Your task to perform on an android device: Go to internet settings Image 0: 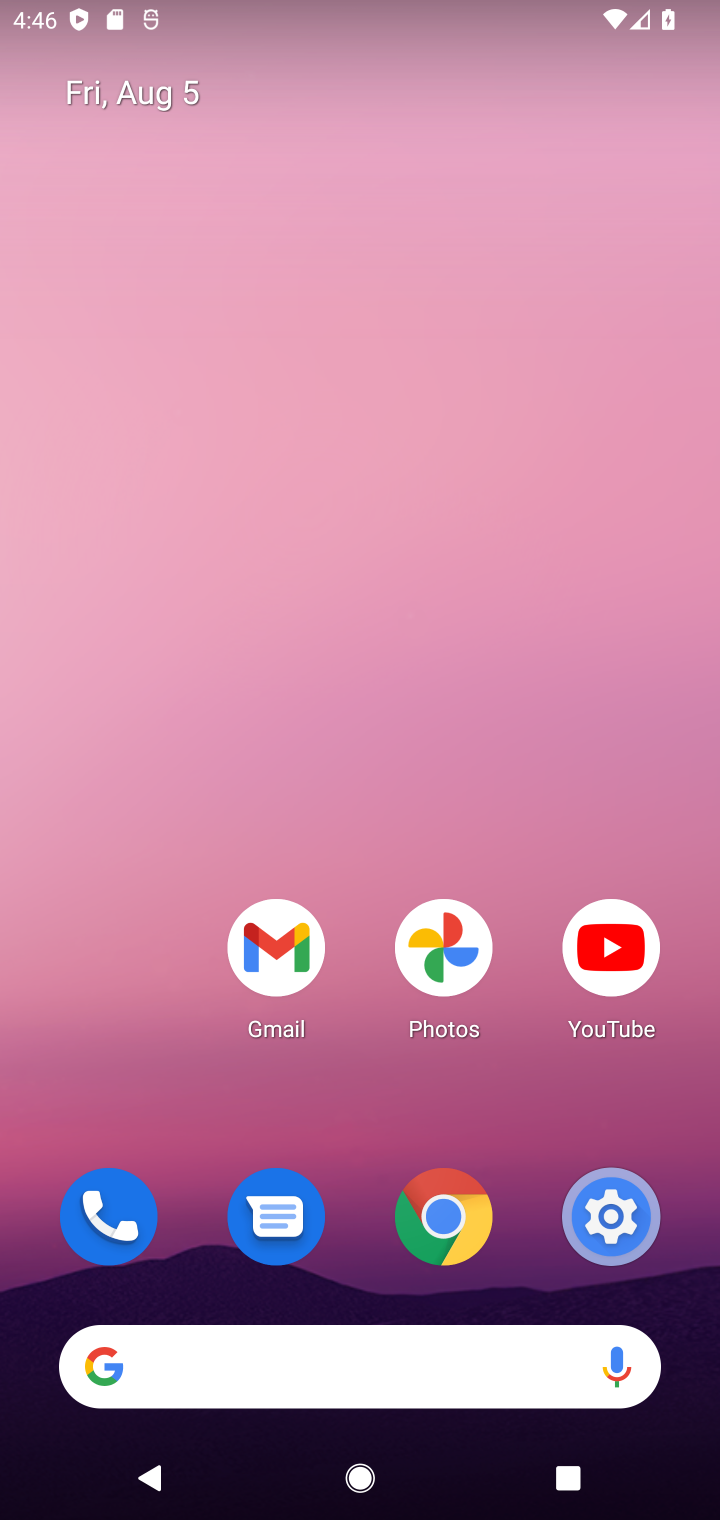
Step 0: click (618, 1214)
Your task to perform on an android device: Go to internet settings Image 1: 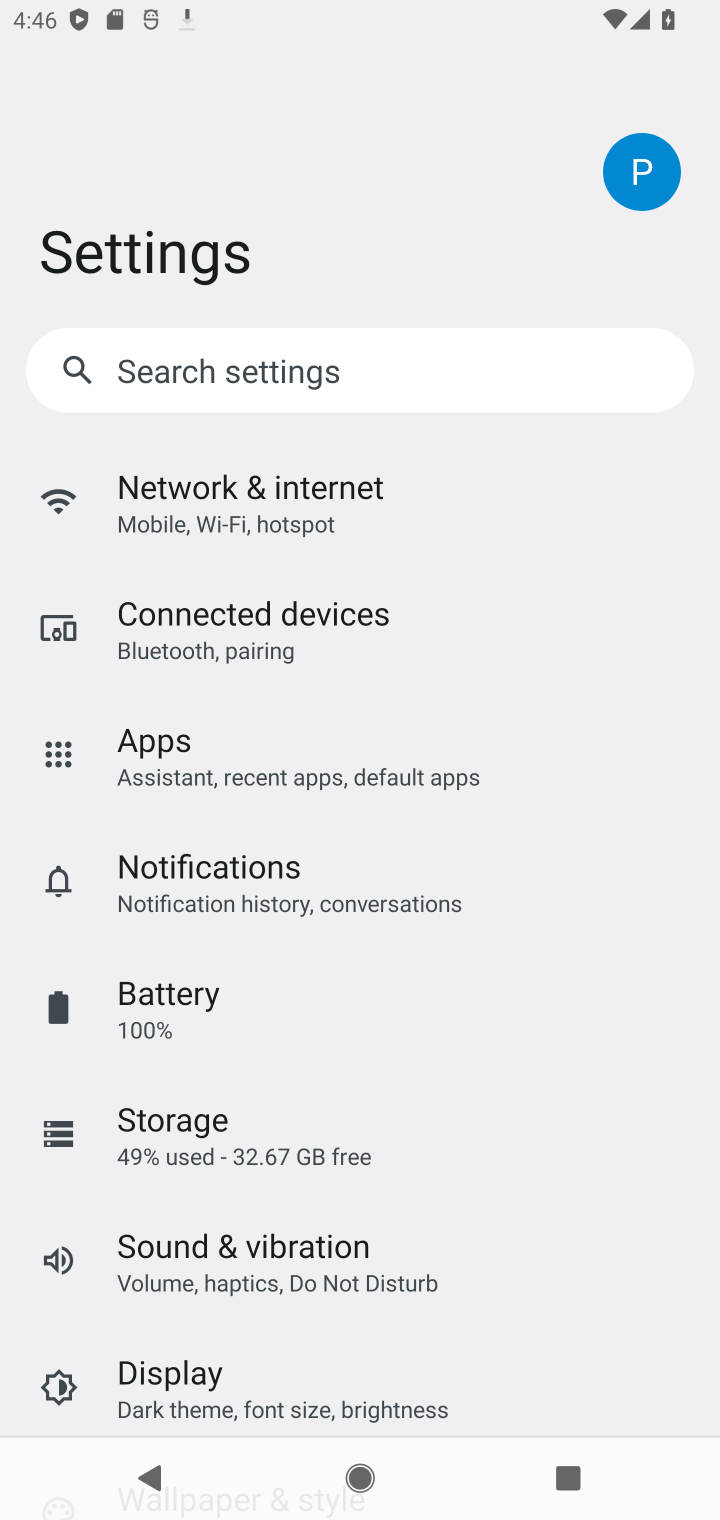
Step 1: click (297, 475)
Your task to perform on an android device: Go to internet settings Image 2: 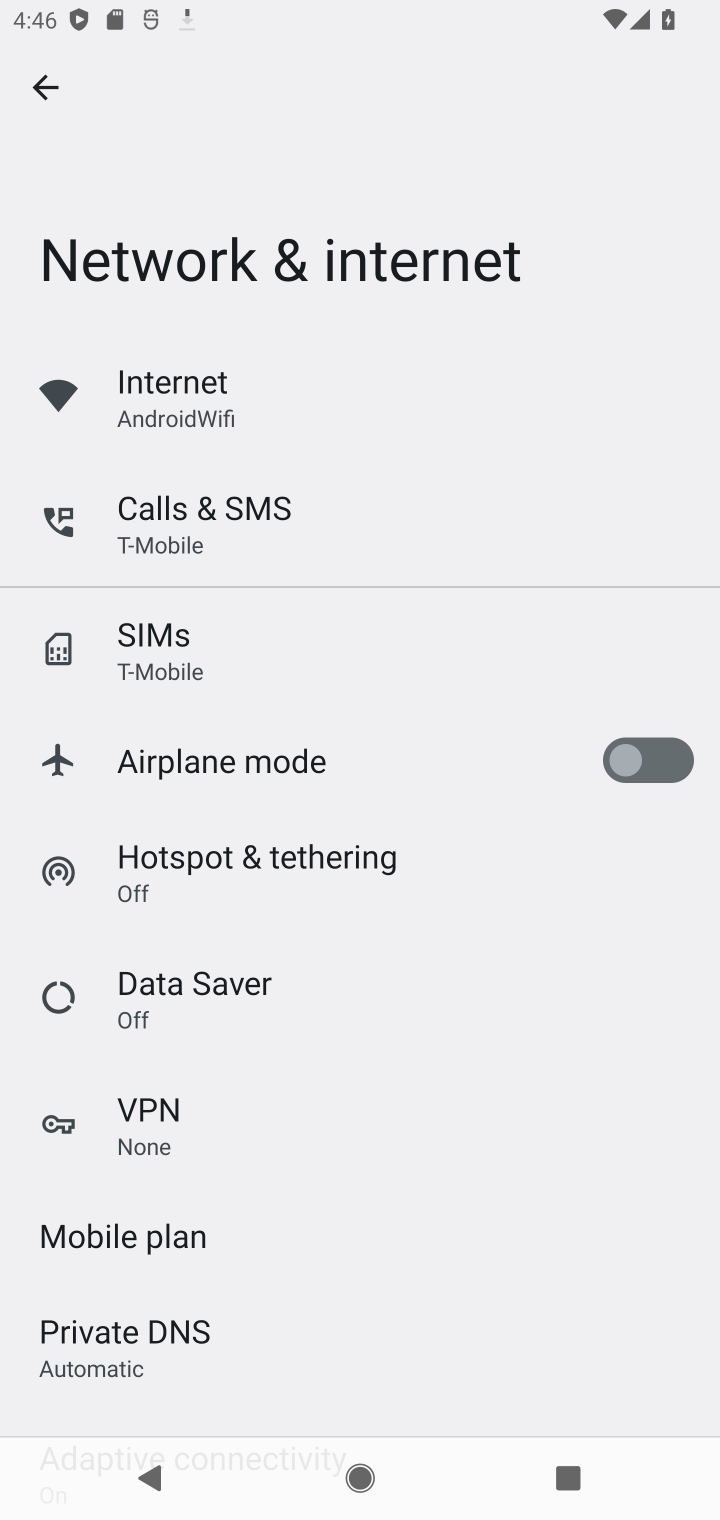
Step 2: click (270, 397)
Your task to perform on an android device: Go to internet settings Image 3: 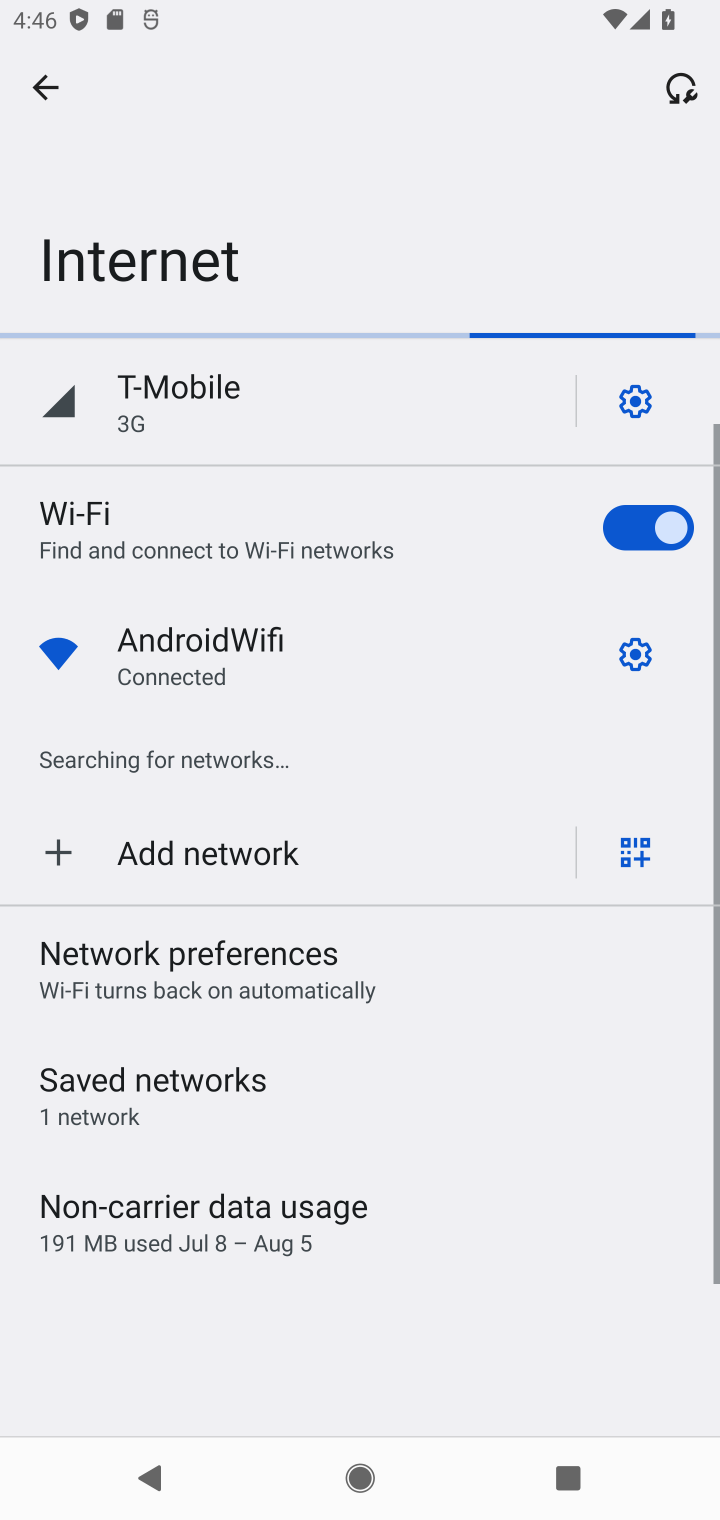
Step 3: task complete